Your task to perform on an android device: Open Google Image 0: 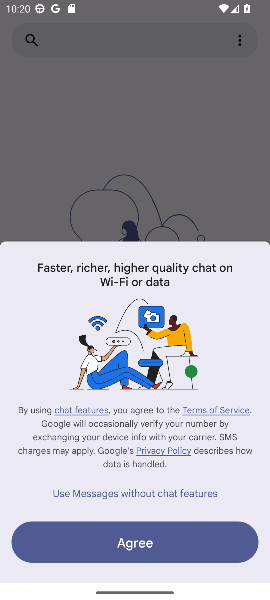
Step 0: press home button
Your task to perform on an android device: Open Google Image 1: 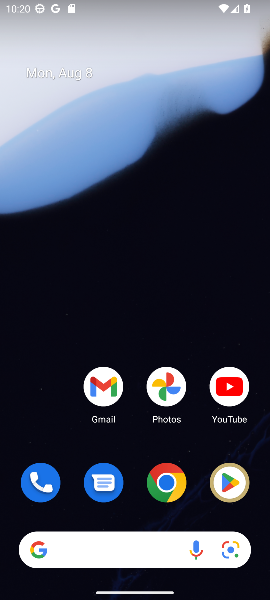
Step 1: drag from (125, 457) to (163, 1)
Your task to perform on an android device: Open Google Image 2: 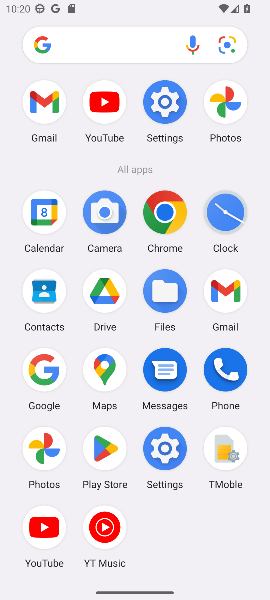
Step 2: click (51, 364)
Your task to perform on an android device: Open Google Image 3: 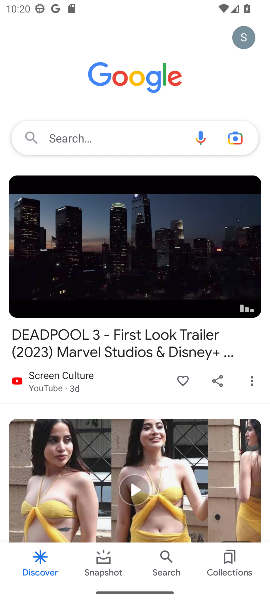
Step 3: task complete